Your task to perform on an android device: Open network settings Image 0: 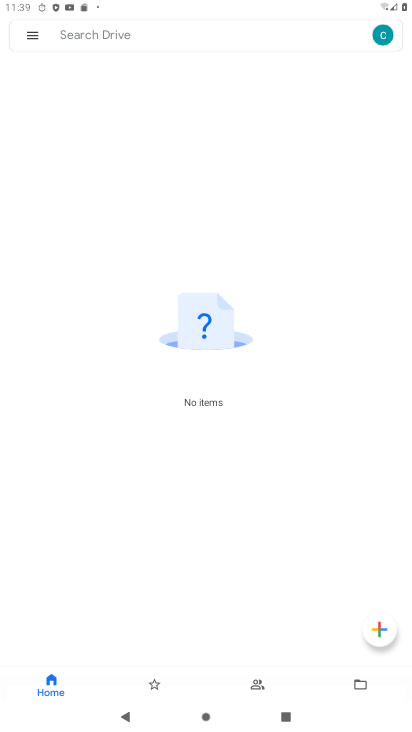
Step 0: press home button
Your task to perform on an android device: Open network settings Image 1: 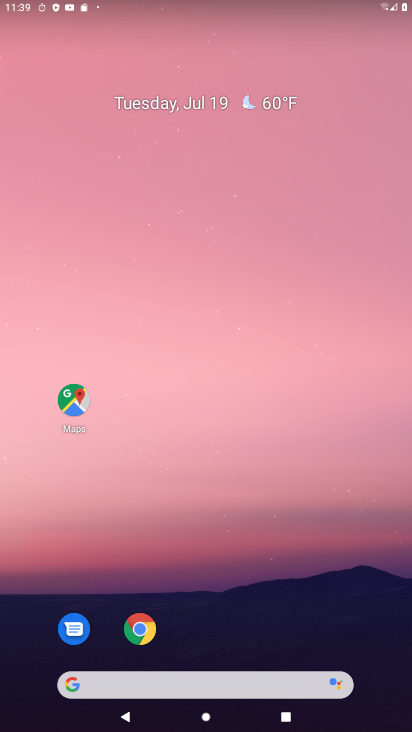
Step 1: drag from (333, 602) to (295, 122)
Your task to perform on an android device: Open network settings Image 2: 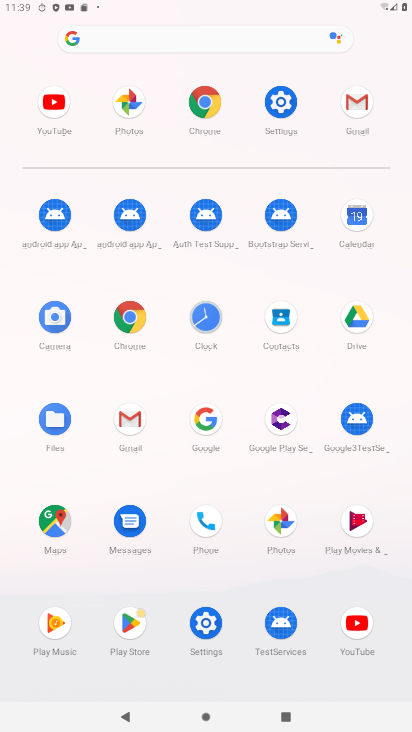
Step 2: click (282, 109)
Your task to perform on an android device: Open network settings Image 3: 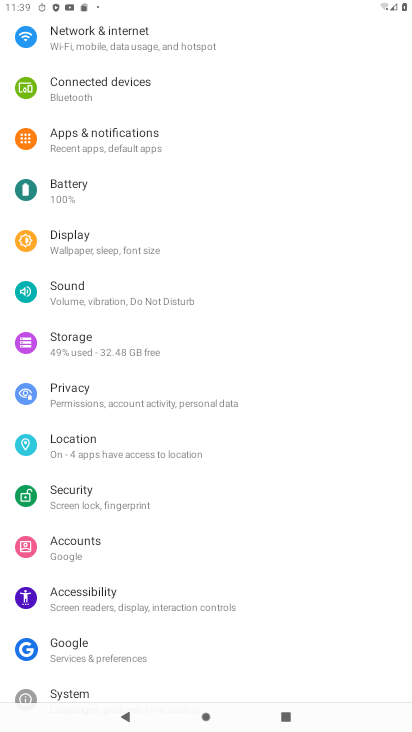
Step 3: click (153, 48)
Your task to perform on an android device: Open network settings Image 4: 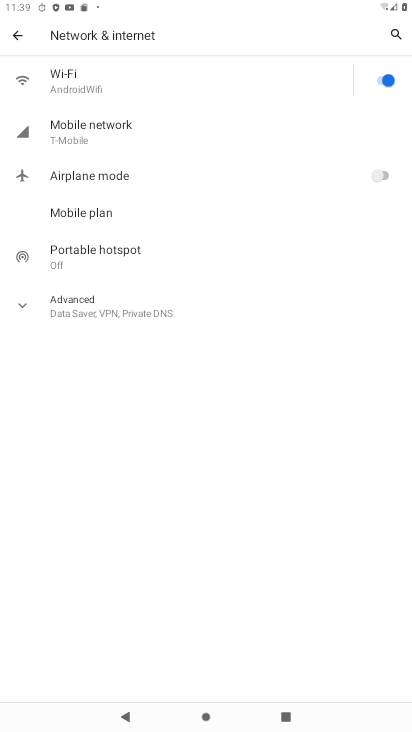
Step 4: click (93, 123)
Your task to perform on an android device: Open network settings Image 5: 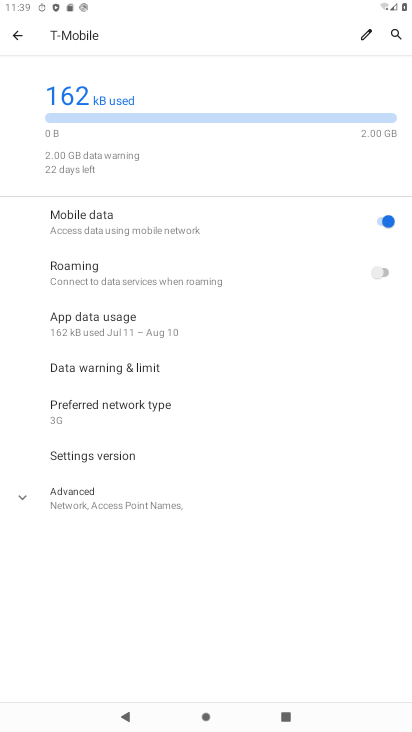
Step 5: task complete